Your task to perform on an android device: turn off javascript in the chrome app Image 0: 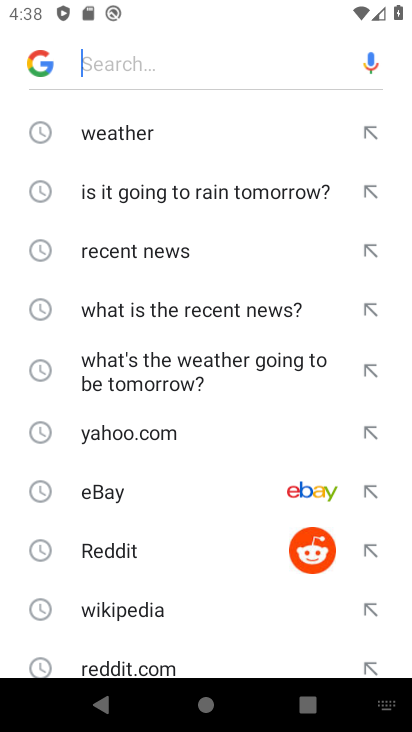
Step 0: press home button
Your task to perform on an android device: turn off javascript in the chrome app Image 1: 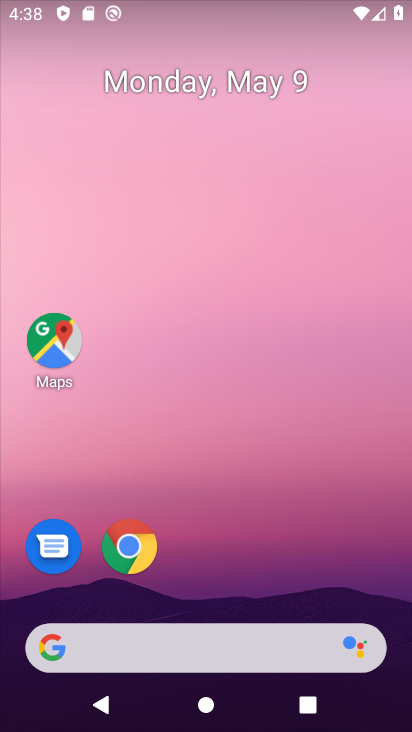
Step 1: click (151, 551)
Your task to perform on an android device: turn off javascript in the chrome app Image 2: 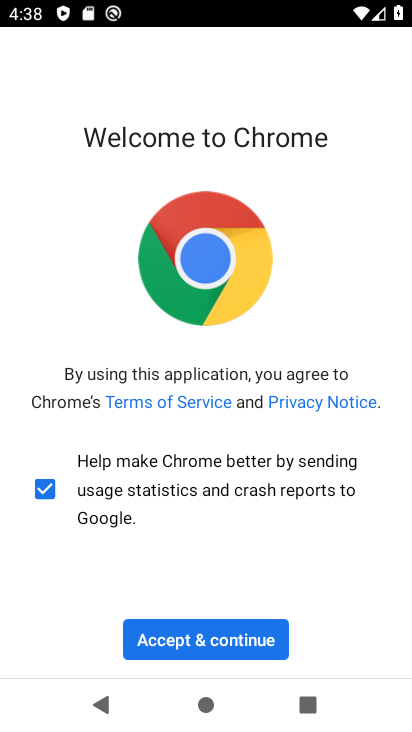
Step 2: click (198, 645)
Your task to perform on an android device: turn off javascript in the chrome app Image 3: 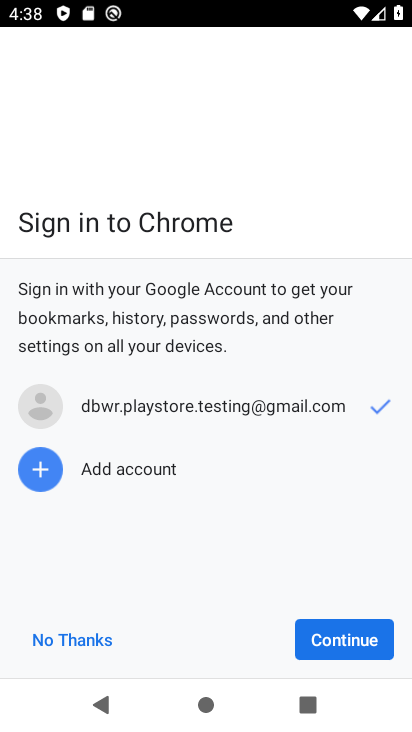
Step 3: click (337, 632)
Your task to perform on an android device: turn off javascript in the chrome app Image 4: 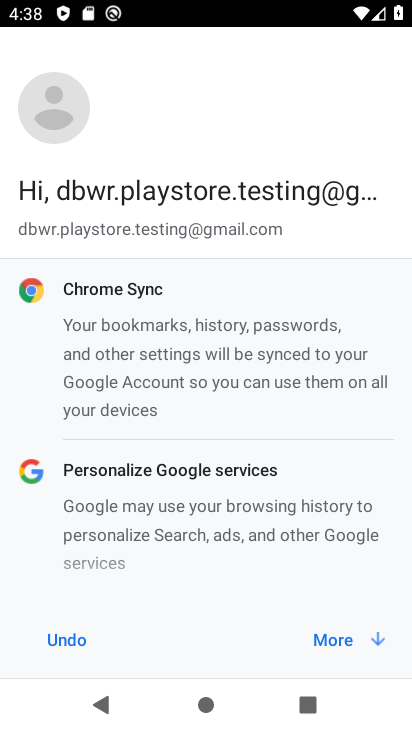
Step 4: click (335, 633)
Your task to perform on an android device: turn off javascript in the chrome app Image 5: 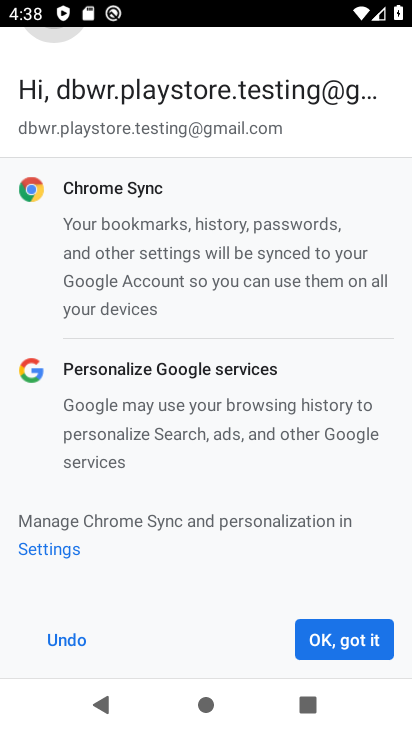
Step 5: click (335, 633)
Your task to perform on an android device: turn off javascript in the chrome app Image 6: 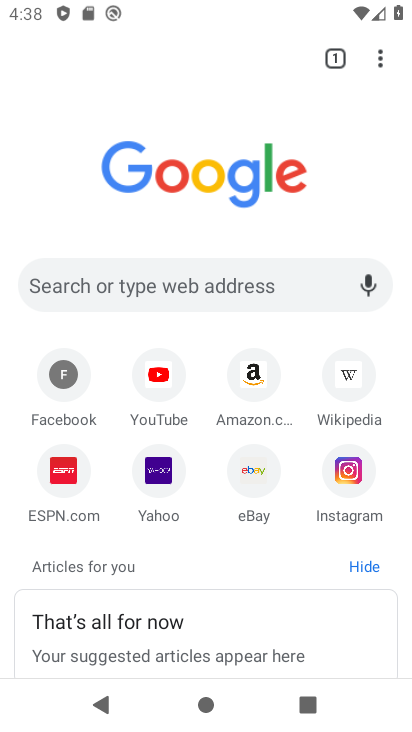
Step 6: click (380, 64)
Your task to perform on an android device: turn off javascript in the chrome app Image 7: 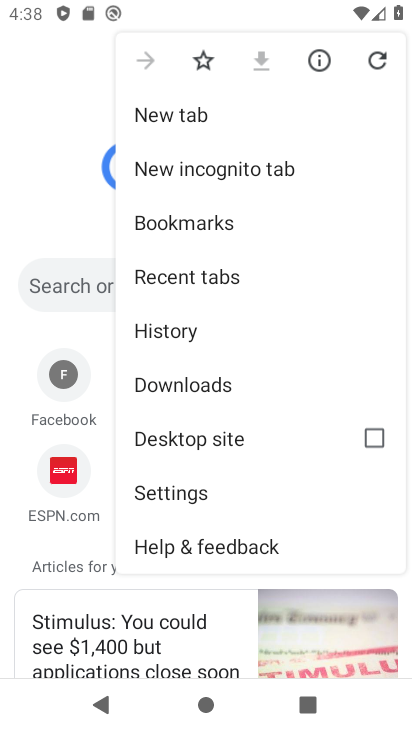
Step 7: click (170, 498)
Your task to perform on an android device: turn off javascript in the chrome app Image 8: 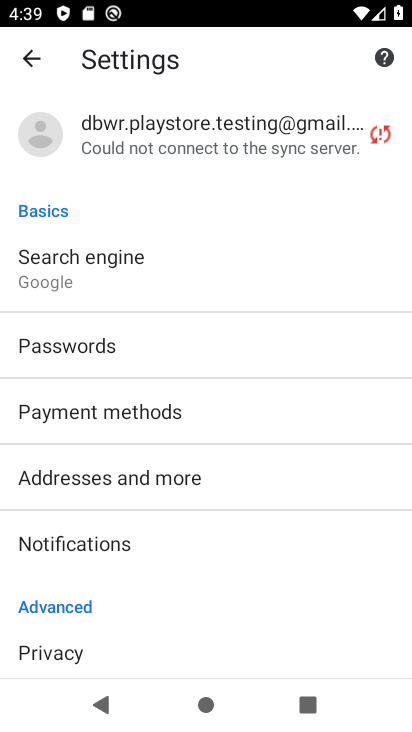
Step 8: drag from (147, 591) to (228, 204)
Your task to perform on an android device: turn off javascript in the chrome app Image 9: 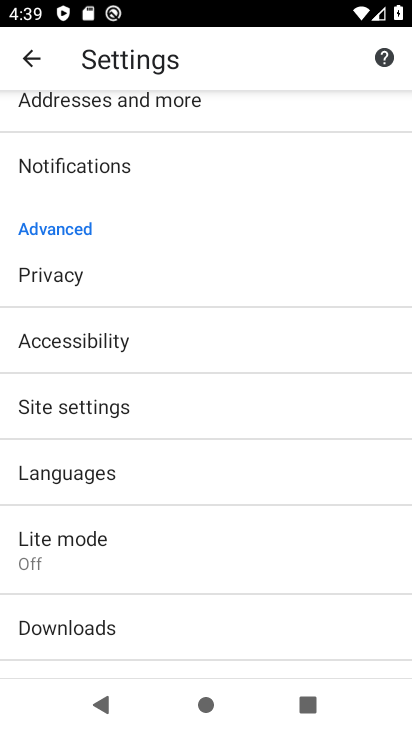
Step 9: click (86, 650)
Your task to perform on an android device: turn off javascript in the chrome app Image 10: 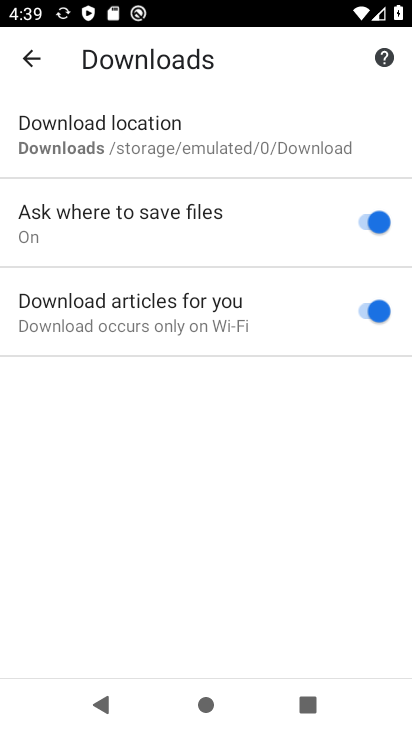
Step 10: click (38, 55)
Your task to perform on an android device: turn off javascript in the chrome app Image 11: 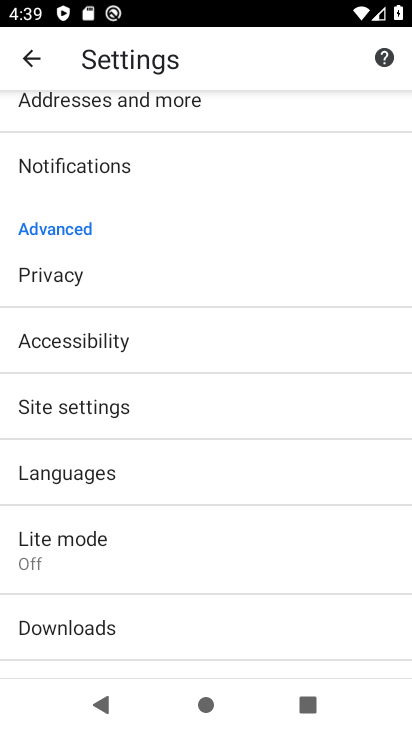
Step 11: click (114, 419)
Your task to perform on an android device: turn off javascript in the chrome app Image 12: 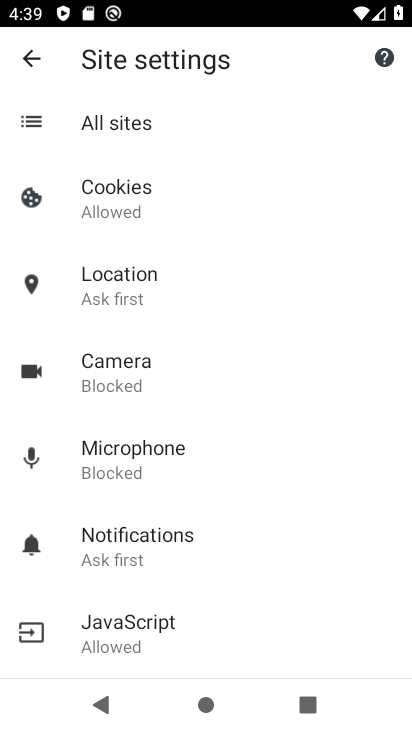
Step 12: click (123, 640)
Your task to perform on an android device: turn off javascript in the chrome app Image 13: 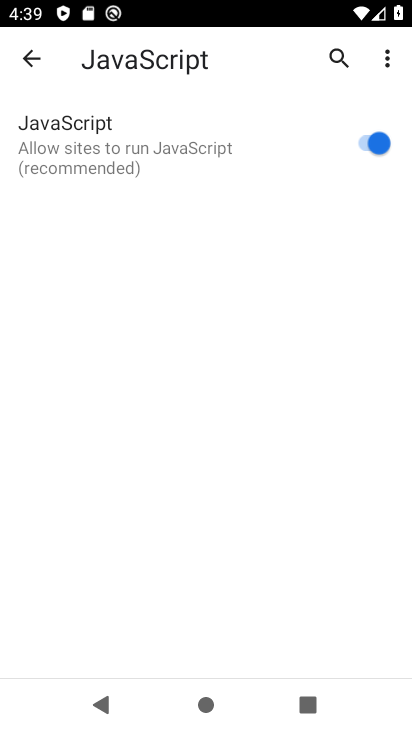
Step 13: click (371, 145)
Your task to perform on an android device: turn off javascript in the chrome app Image 14: 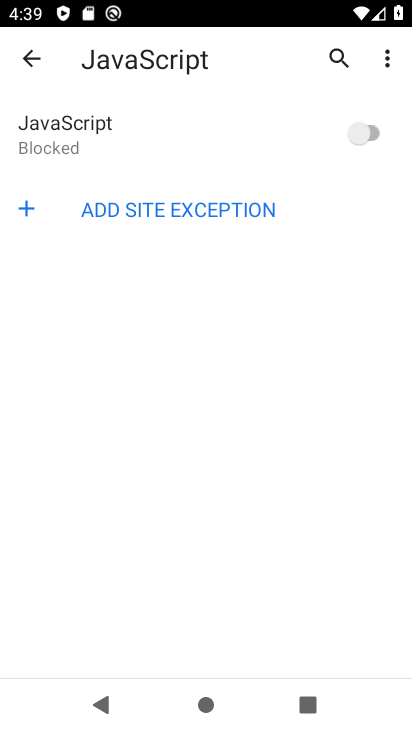
Step 14: task complete